Your task to perform on an android device: Go to settings Image 0: 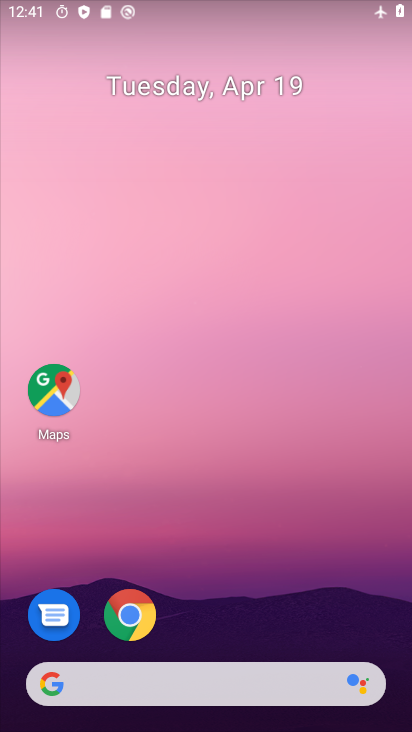
Step 0: drag from (370, 627) to (364, 85)
Your task to perform on an android device: Go to settings Image 1: 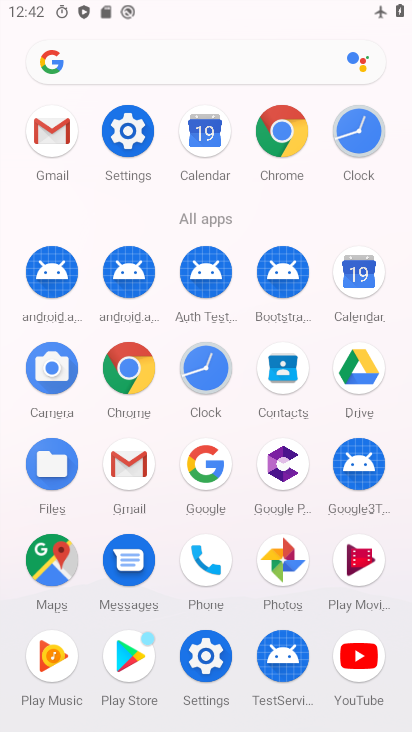
Step 1: click (126, 132)
Your task to perform on an android device: Go to settings Image 2: 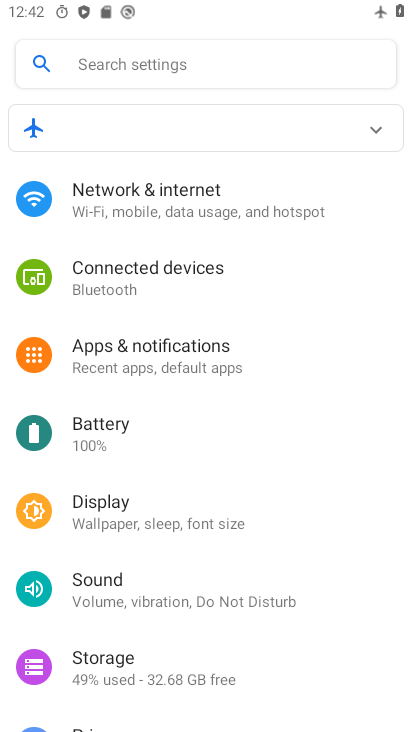
Step 2: task complete